Your task to perform on an android device: Play the last video I watched on Youtube Image 0: 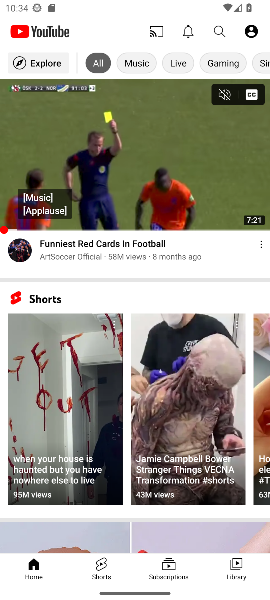
Step 0: press back button
Your task to perform on an android device: Play the last video I watched on Youtube Image 1: 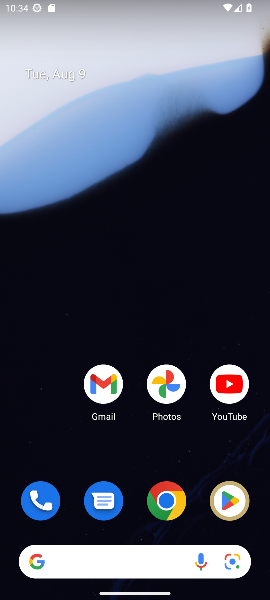
Step 1: click (229, 390)
Your task to perform on an android device: Play the last video I watched on Youtube Image 2: 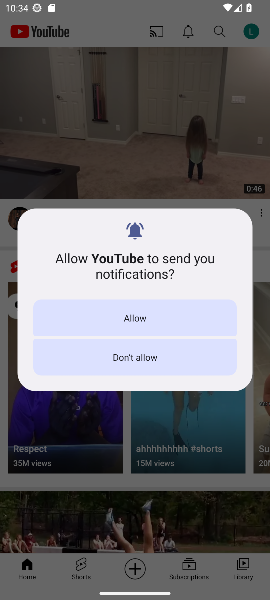
Step 2: click (132, 311)
Your task to perform on an android device: Play the last video I watched on Youtube Image 3: 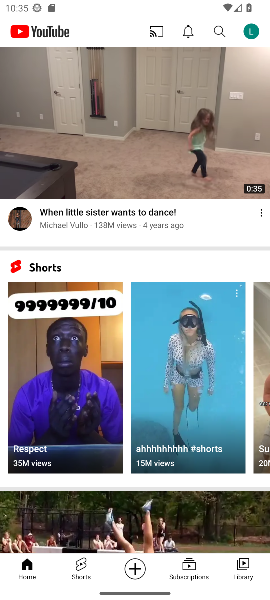
Step 3: click (246, 570)
Your task to perform on an android device: Play the last video I watched on Youtube Image 4: 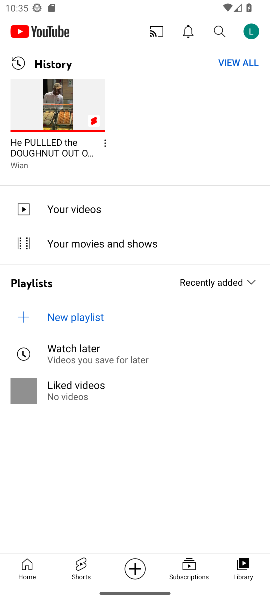
Step 4: task complete